Your task to perform on an android device: What's a good restaurant in Atlanta? Image 0: 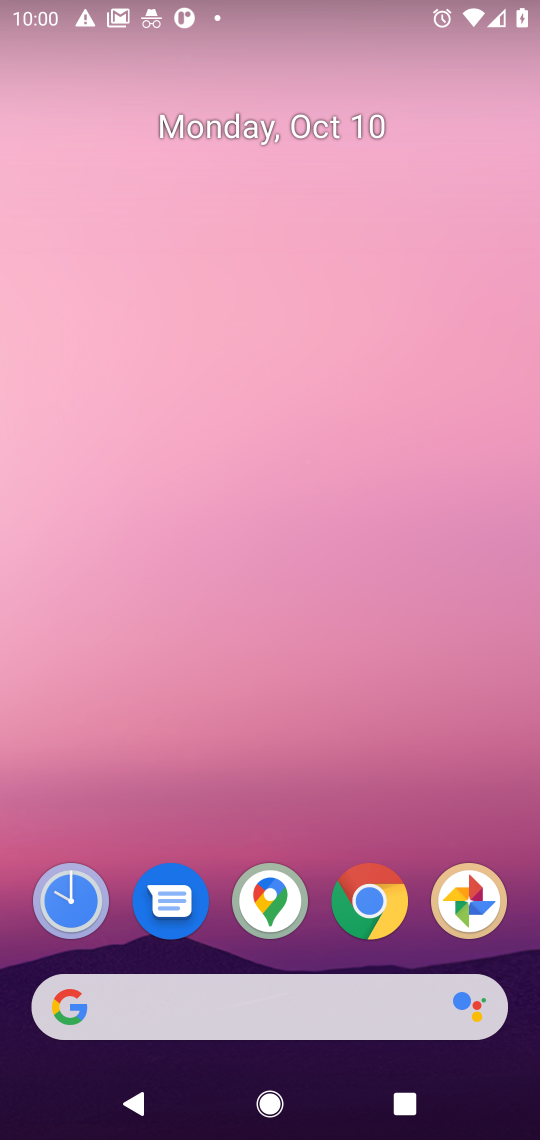
Step 0: press home button
Your task to perform on an android device: What's a good restaurant in Atlanta? Image 1: 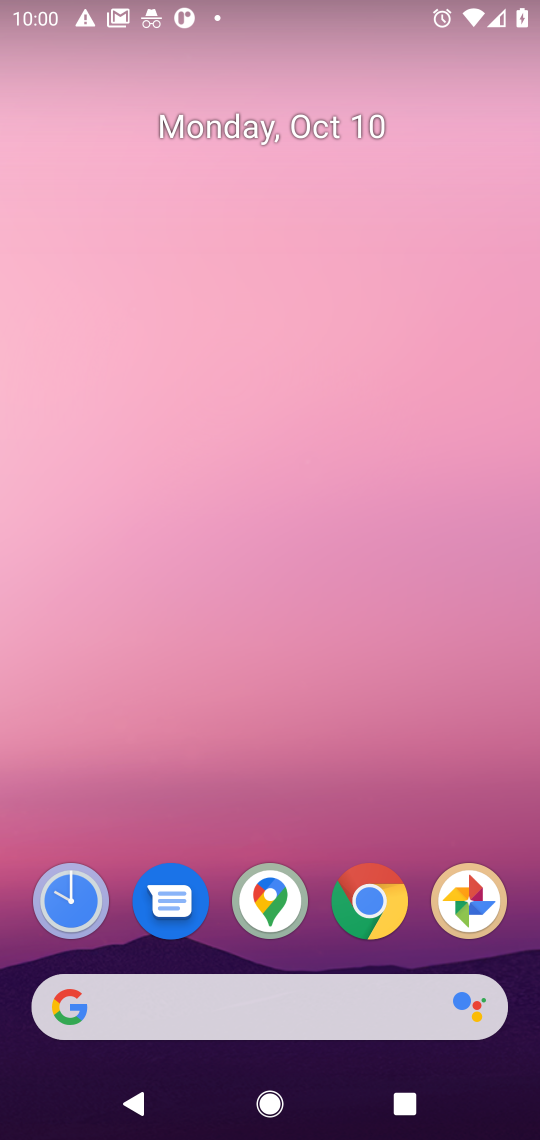
Step 1: click (300, 1002)
Your task to perform on an android device: What's a good restaurant in Atlanta? Image 2: 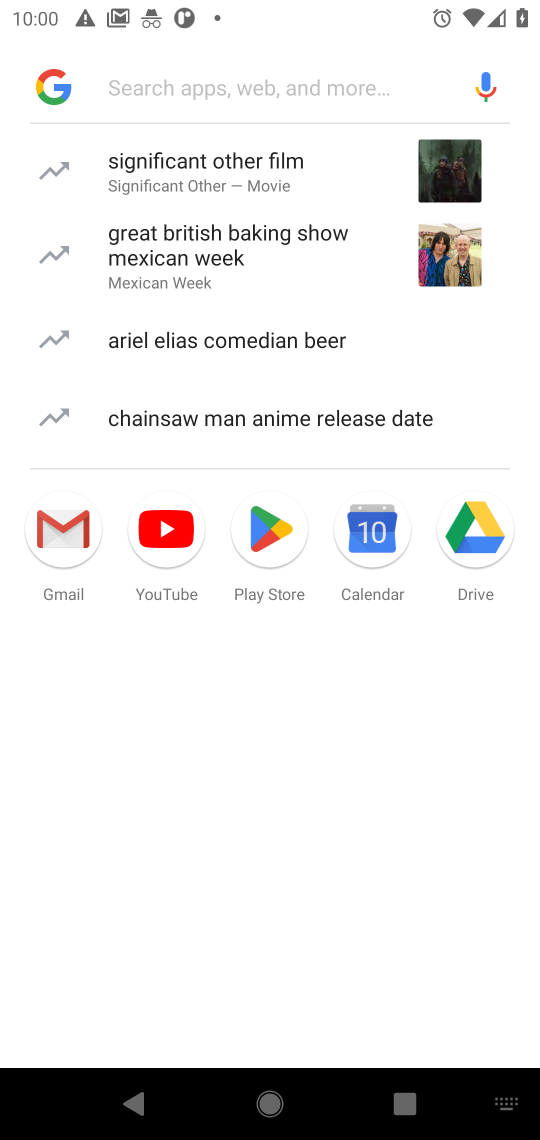
Step 2: type "What's a good restaurant in Atlanta"
Your task to perform on an android device: What's a good restaurant in Atlanta? Image 3: 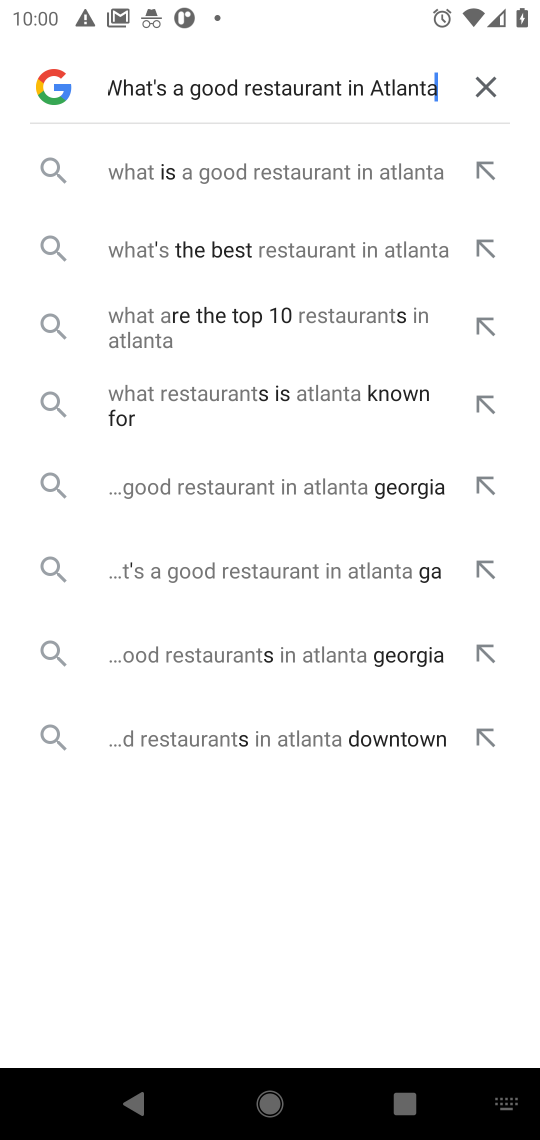
Step 3: press enter
Your task to perform on an android device: What's a good restaurant in Atlanta? Image 4: 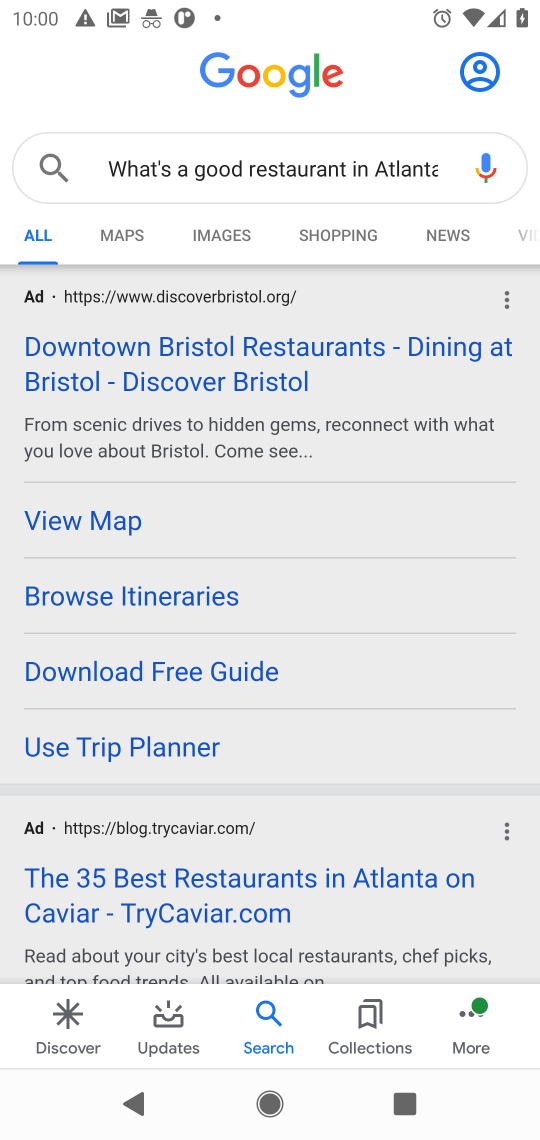
Step 4: drag from (379, 811) to (369, 555)
Your task to perform on an android device: What's a good restaurant in Atlanta? Image 5: 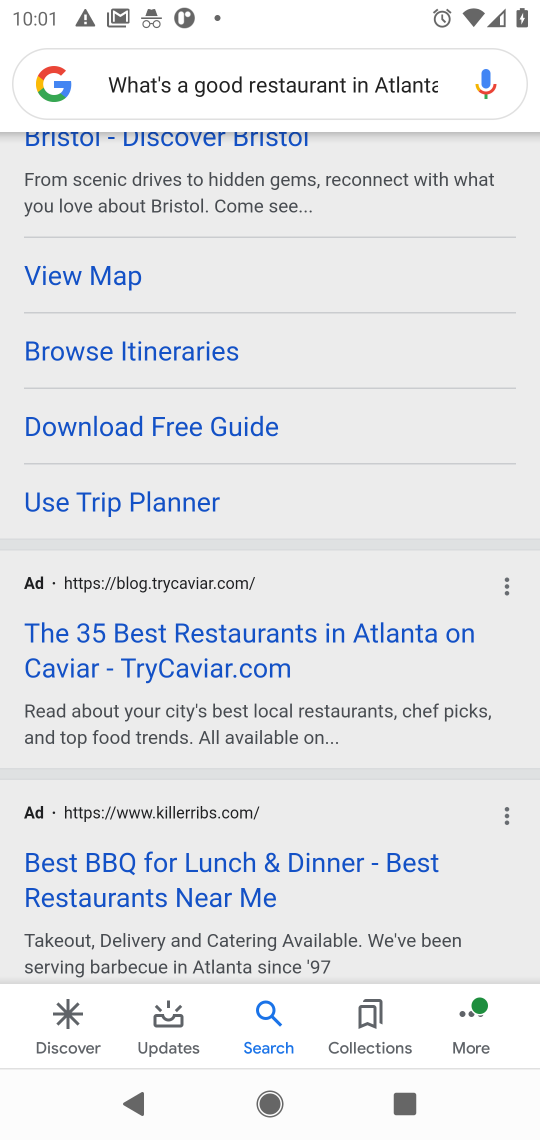
Step 5: click (311, 643)
Your task to perform on an android device: What's a good restaurant in Atlanta? Image 6: 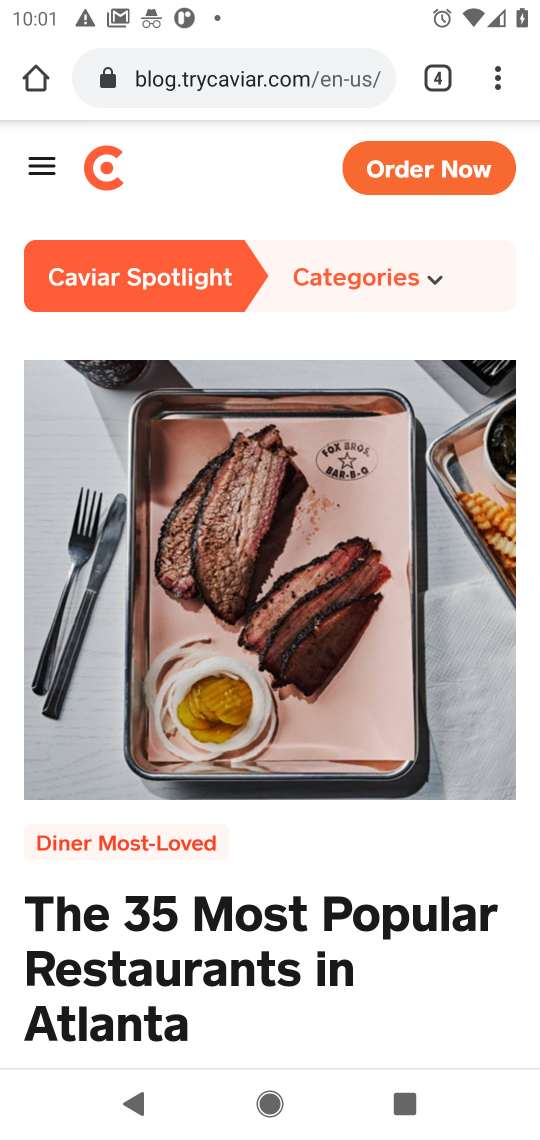
Step 6: task complete